Your task to perform on an android device: Search for hotels in Seattle Image 0: 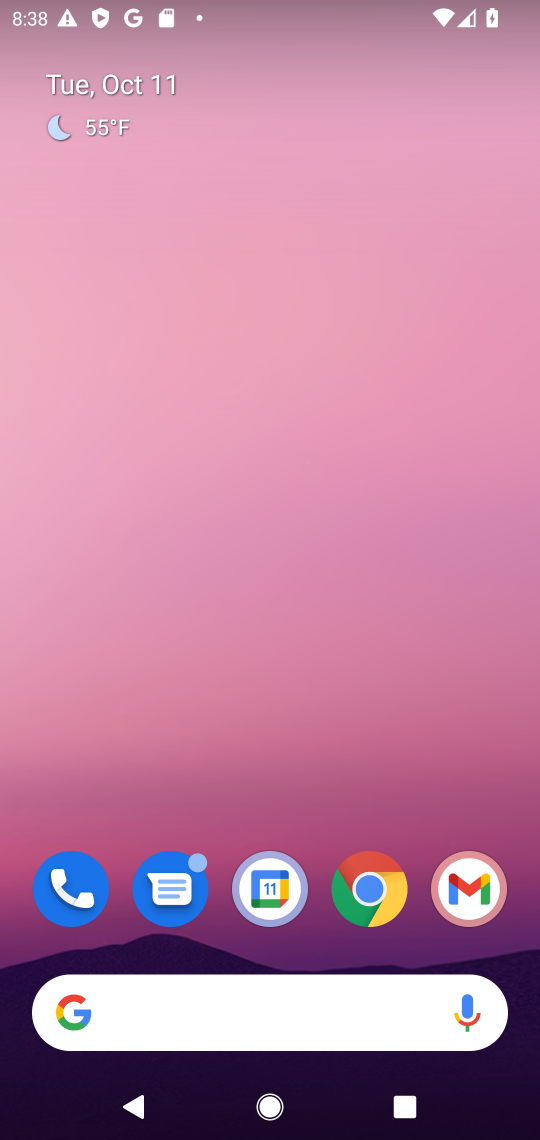
Step 0: click (264, 1003)
Your task to perform on an android device: Search for hotels in Seattle Image 1: 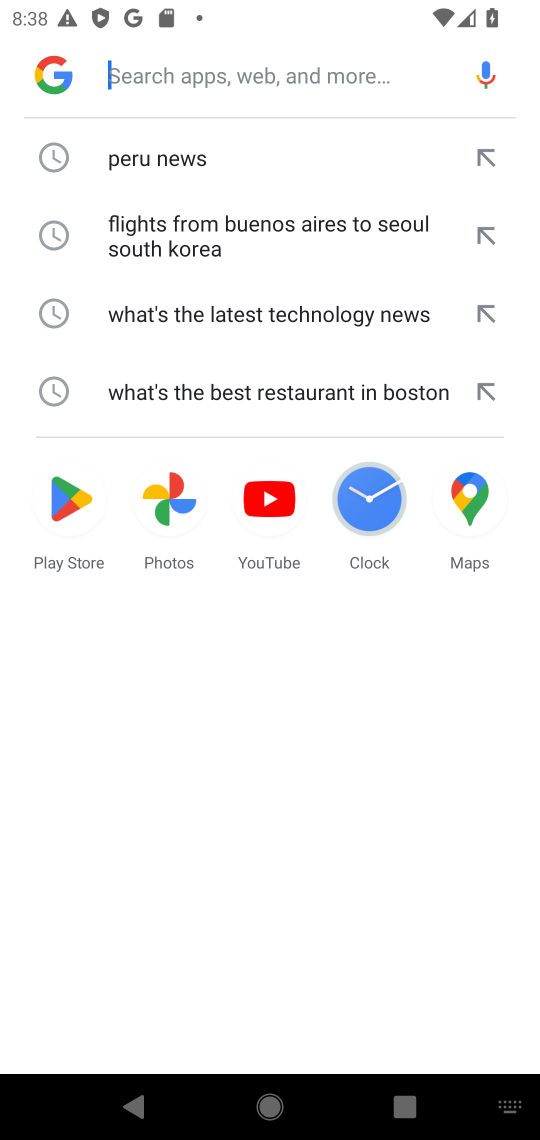
Step 1: click (142, 58)
Your task to perform on an android device: Search for hotels in Seattle Image 2: 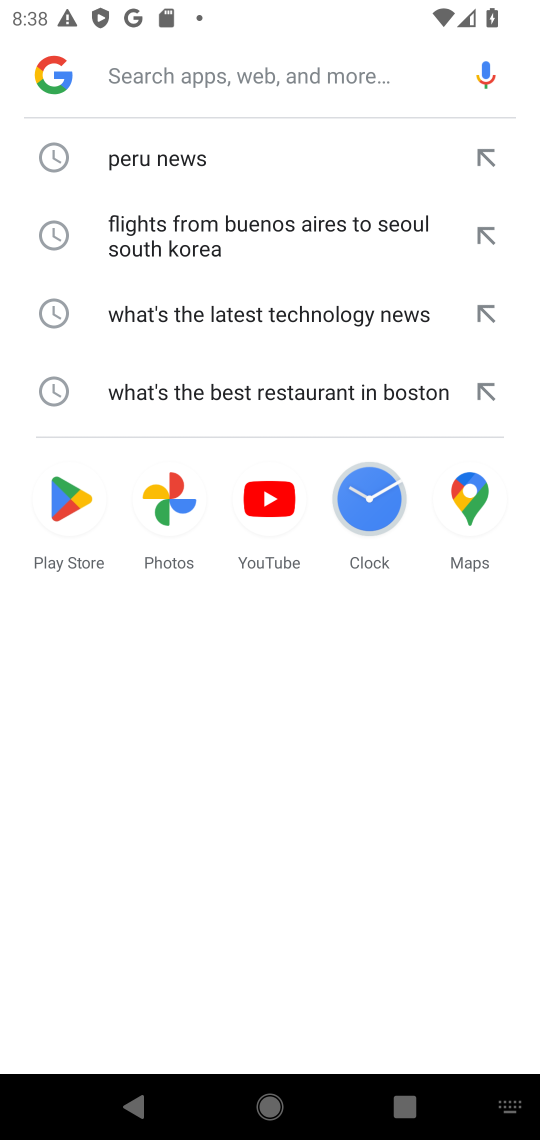
Step 2: type "hotels in Seattle"
Your task to perform on an android device: Search for hotels in Seattle Image 3: 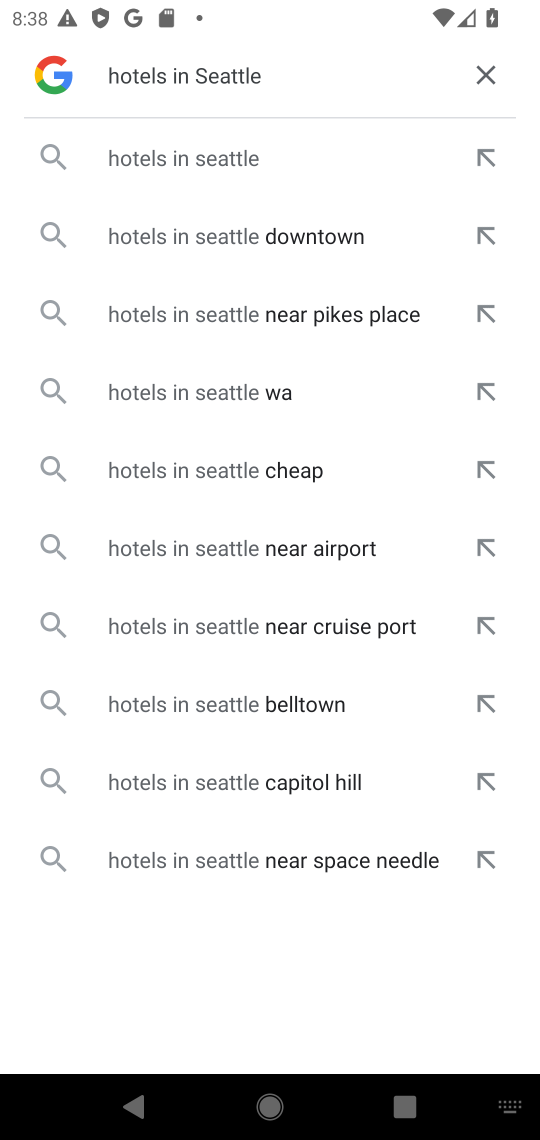
Step 3: click (177, 156)
Your task to perform on an android device: Search for hotels in Seattle Image 4: 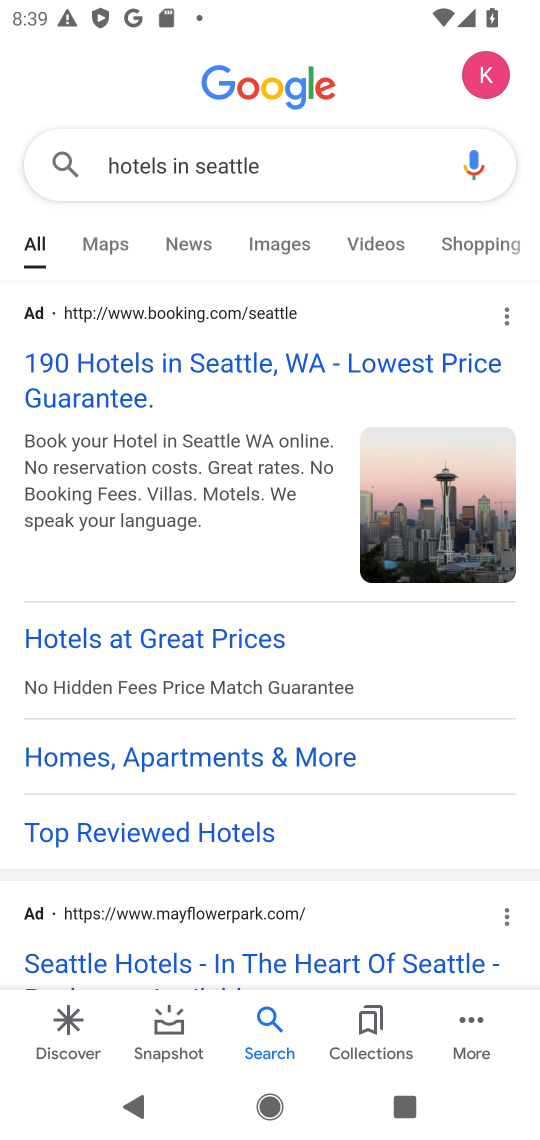
Step 4: task complete